Your task to perform on an android device: Open eBay Image 0: 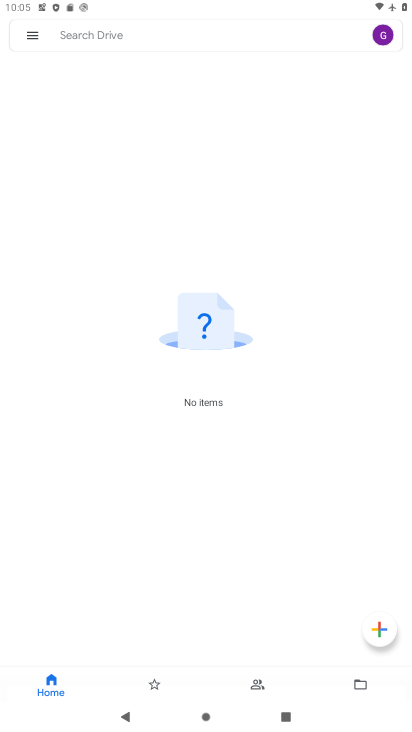
Step 0: task complete